Your task to perform on an android device: Open privacy settings Image 0: 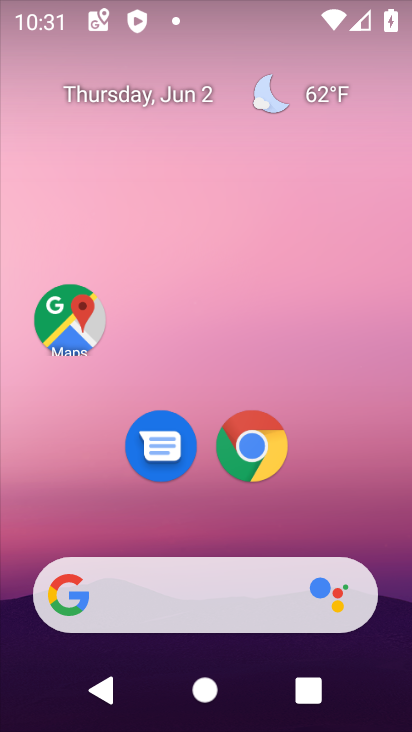
Step 0: drag from (353, 478) to (289, 166)
Your task to perform on an android device: Open privacy settings Image 1: 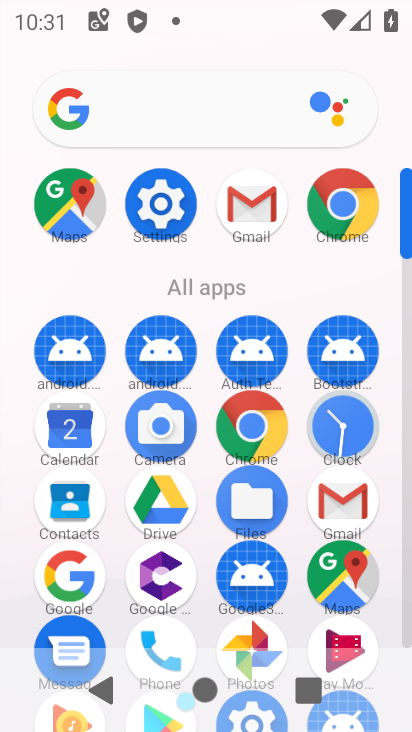
Step 1: click (174, 206)
Your task to perform on an android device: Open privacy settings Image 2: 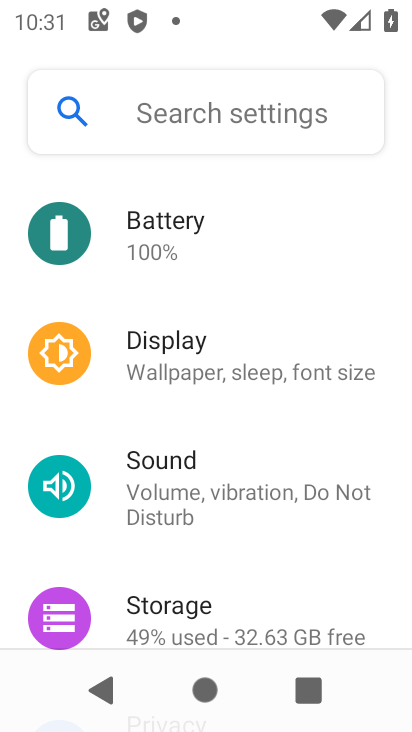
Step 2: drag from (276, 533) to (285, 180)
Your task to perform on an android device: Open privacy settings Image 3: 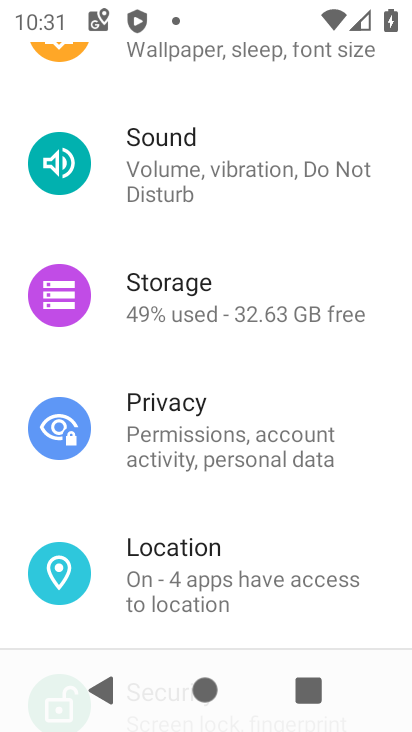
Step 3: click (230, 454)
Your task to perform on an android device: Open privacy settings Image 4: 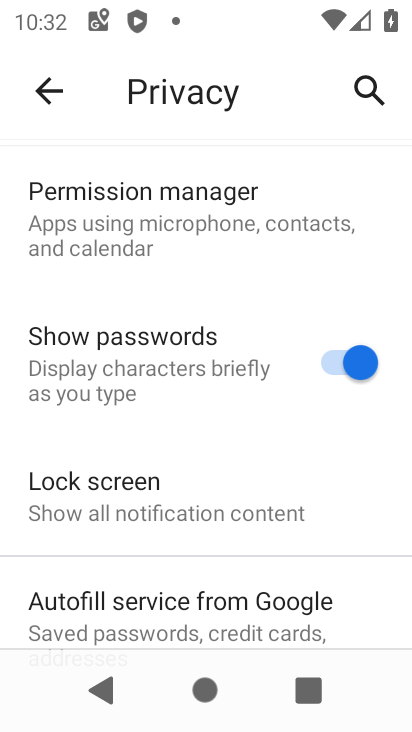
Step 4: task complete